Your task to perform on an android device: turn off translation in the chrome app Image 0: 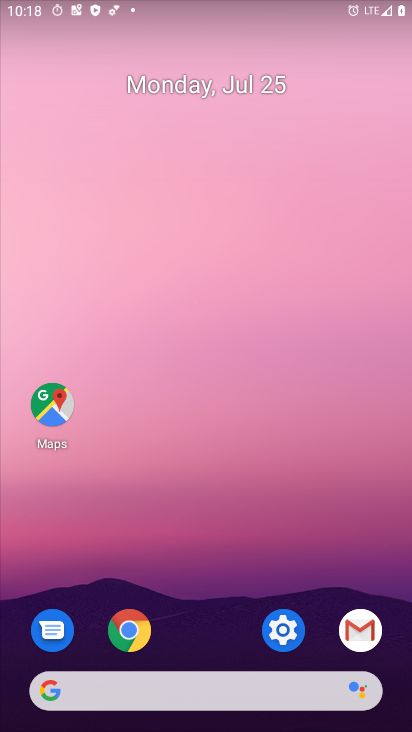
Step 0: click (130, 608)
Your task to perform on an android device: turn off translation in the chrome app Image 1: 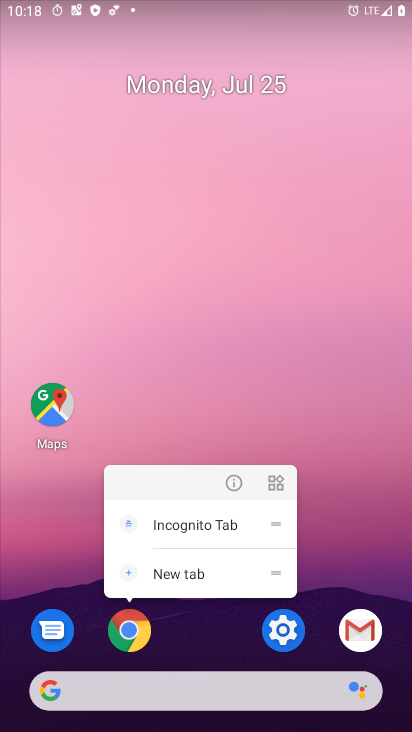
Step 1: click (146, 640)
Your task to perform on an android device: turn off translation in the chrome app Image 2: 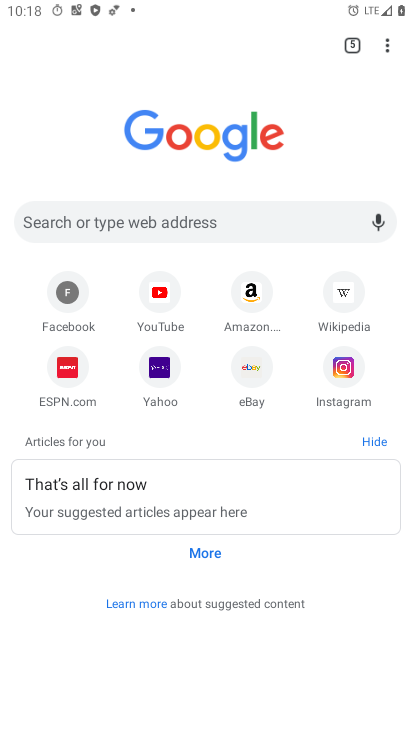
Step 2: click (382, 53)
Your task to perform on an android device: turn off translation in the chrome app Image 3: 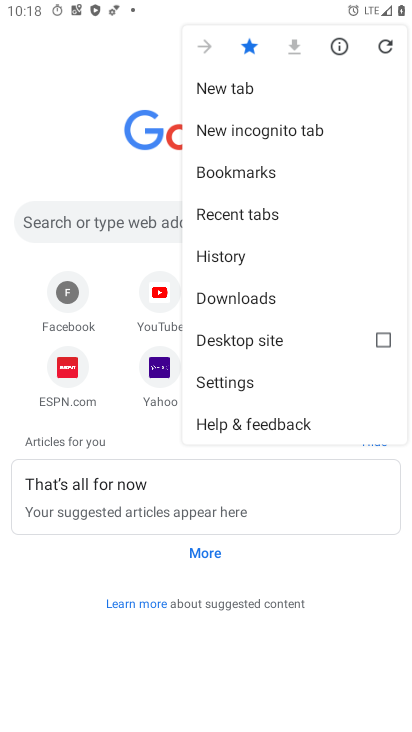
Step 3: click (242, 376)
Your task to perform on an android device: turn off translation in the chrome app Image 4: 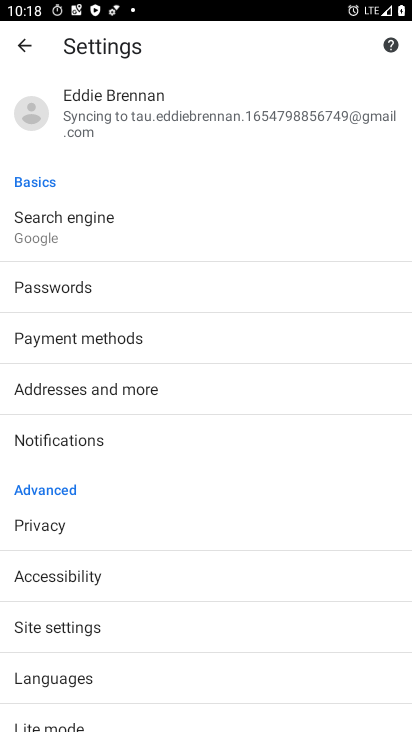
Step 4: click (77, 681)
Your task to perform on an android device: turn off translation in the chrome app Image 5: 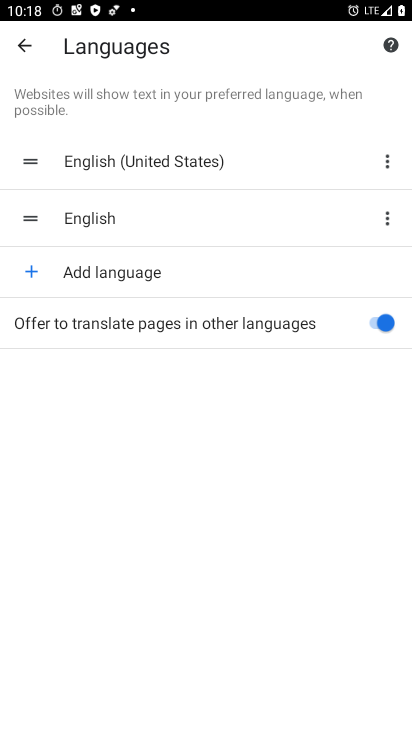
Step 5: click (359, 324)
Your task to perform on an android device: turn off translation in the chrome app Image 6: 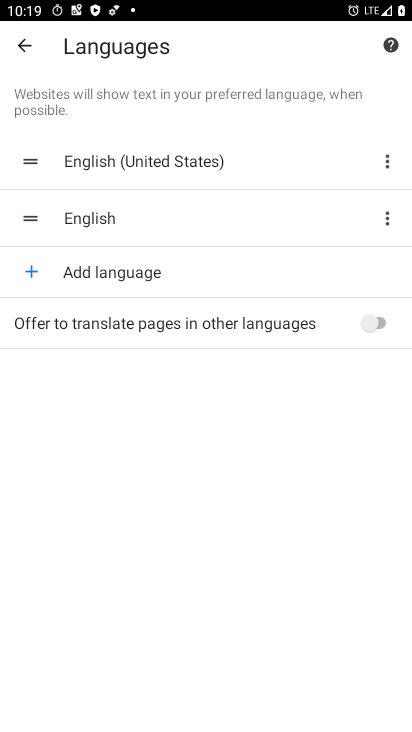
Step 6: task complete